Your task to perform on an android device: Go to location settings Image 0: 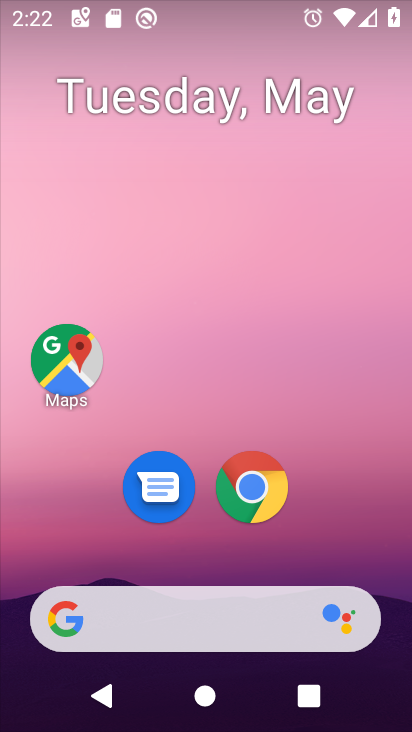
Step 0: drag from (140, 445) to (347, 114)
Your task to perform on an android device: Go to location settings Image 1: 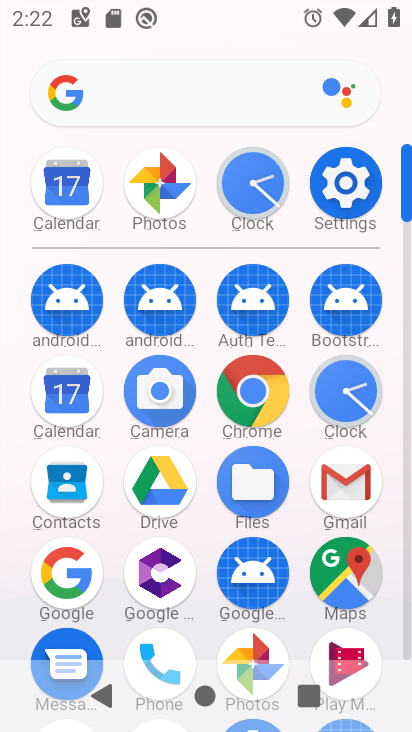
Step 1: click (359, 198)
Your task to perform on an android device: Go to location settings Image 2: 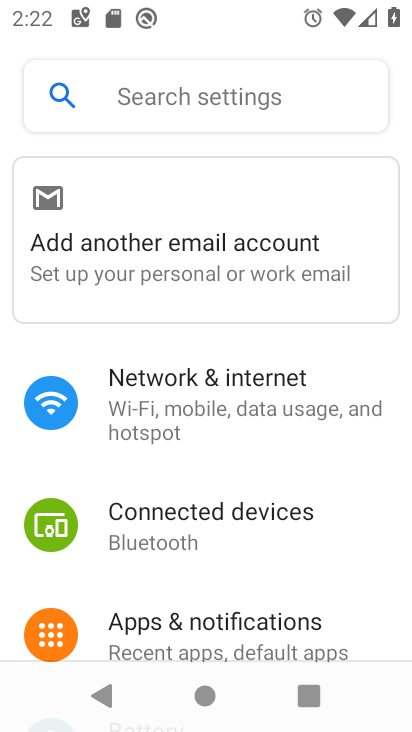
Step 2: drag from (55, 473) to (292, 169)
Your task to perform on an android device: Go to location settings Image 3: 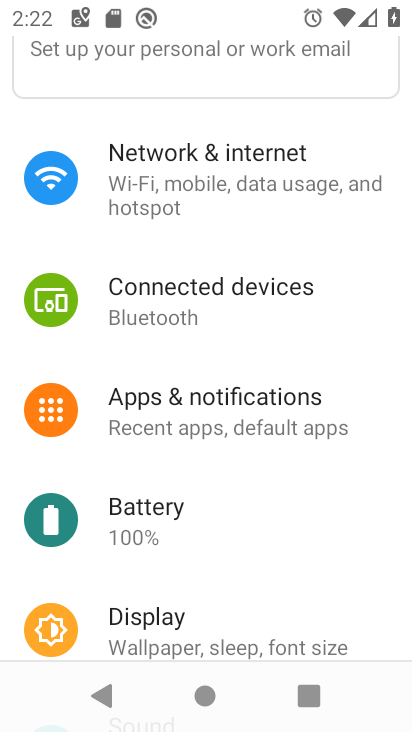
Step 3: drag from (42, 567) to (326, 193)
Your task to perform on an android device: Go to location settings Image 4: 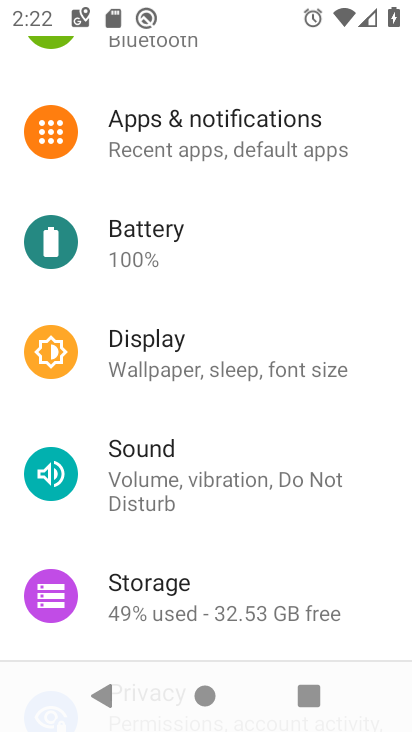
Step 4: drag from (11, 579) to (284, 264)
Your task to perform on an android device: Go to location settings Image 5: 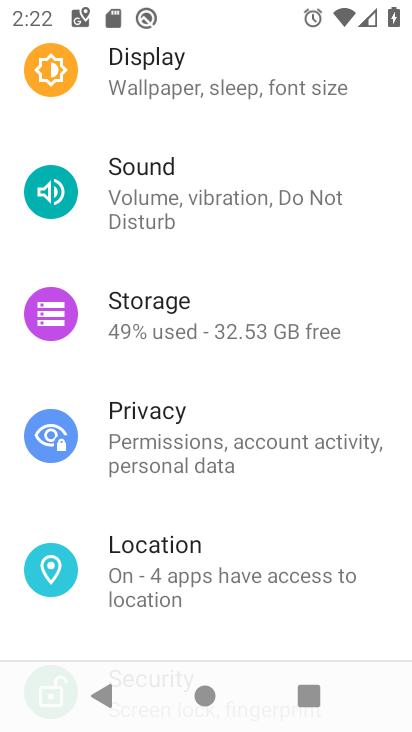
Step 5: click (125, 570)
Your task to perform on an android device: Go to location settings Image 6: 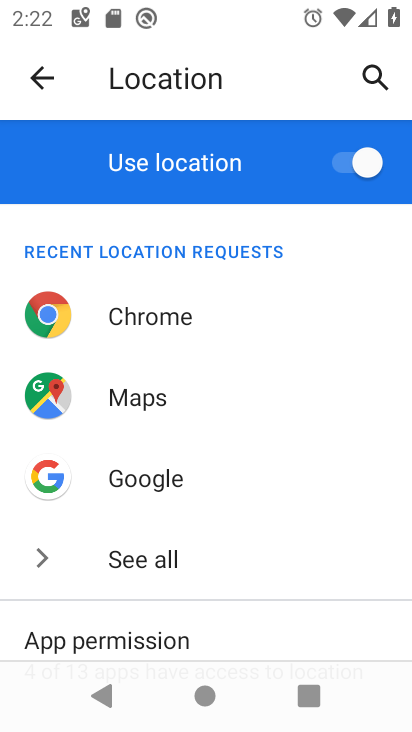
Step 6: task complete